Your task to perform on an android device: change notification settings in the gmail app Image 0: 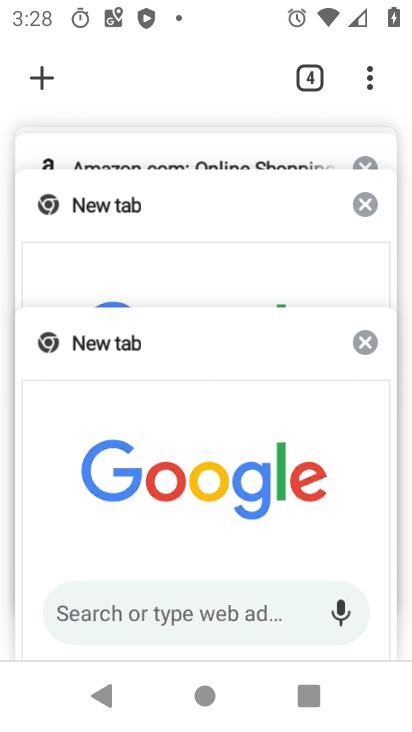
Step 0: press home button
Your task to perform on an android device: change notification settings in the gmail app Image 1: 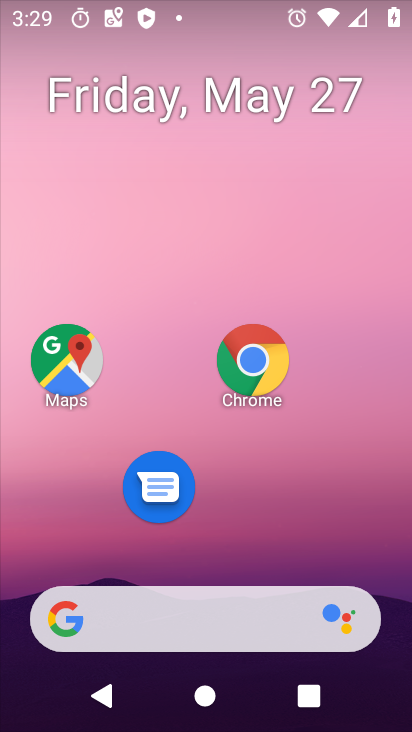
Step 1: drag from (272, 495) to (339, 1)
Your task to perform on an android device: change notification settings in the gmail app Image 2: 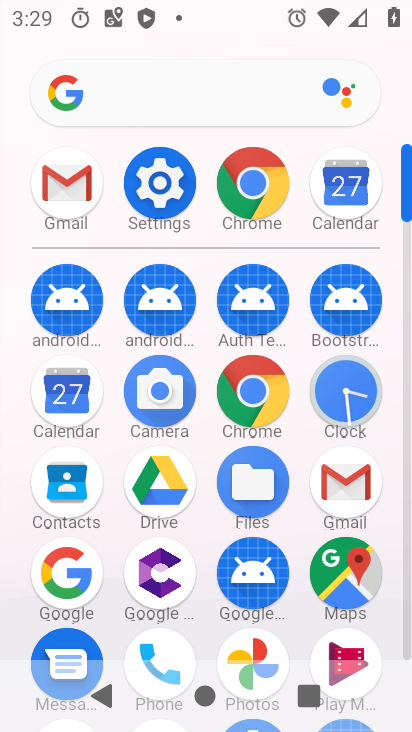
Step 2: click (56, 187)
Your task to perform on an android device: change notification settings in the gmail app Image 3: 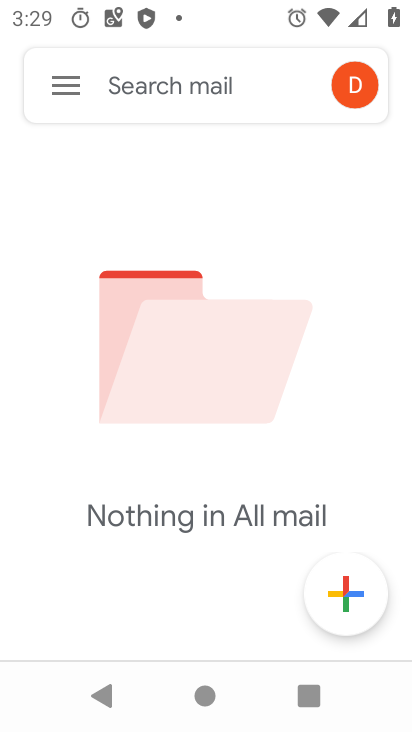
Step 3: click (71, 94)
Your task to perform on an android device: change notification settings in the gmail app Image 4: 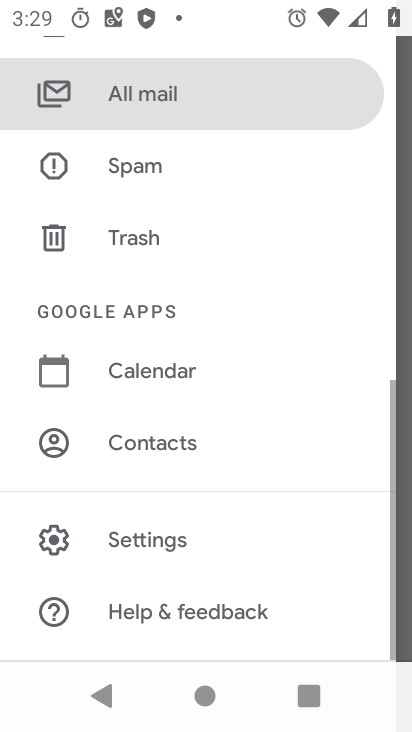
Step 4: click (159, 553)
Your task to perform on an android device: change notification settings in the gmail app Image 5: 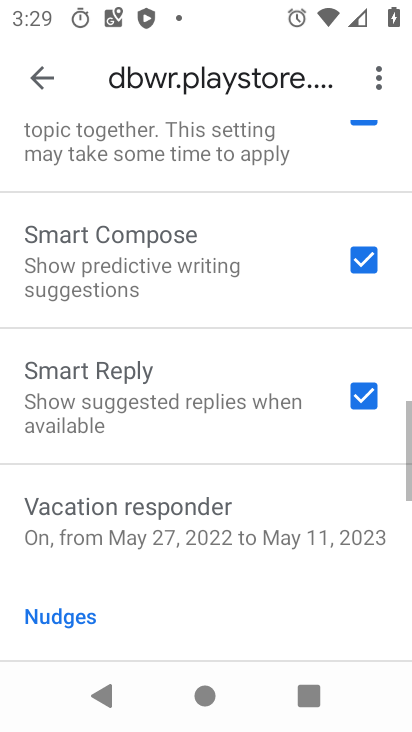
Step 5: drag from (223, 190) to (259, 515)
Your task to perform on an android device: change notification settings in the gmail app Image 6: 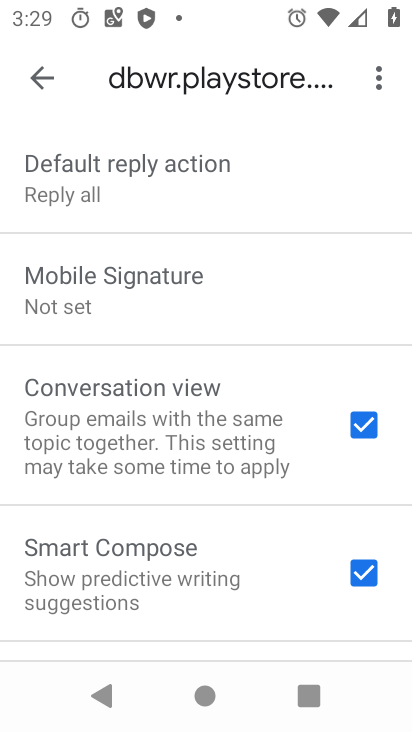
Step 6: drag from (196, 230) to (232, 528)
Your task to perform on an android device: change notification settings in the gmail app Image 7: 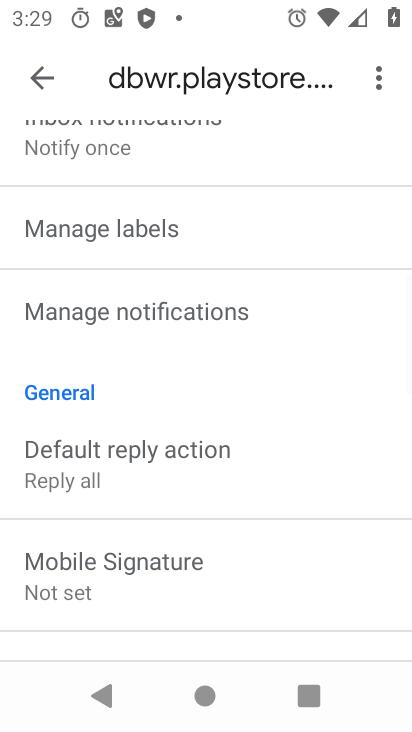
Step 7: drag from (144, 119) to (189, 339)
Your task to perform on an android device: change notification settings in the gmail app Image 8: 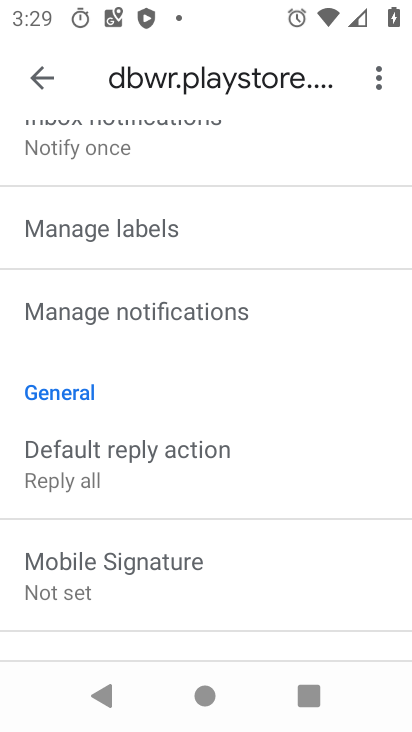
Step 8: drag from (168, 146) to (172, 394)
Your task to perform on an android device: change notification settings in the gmail app Image 9: 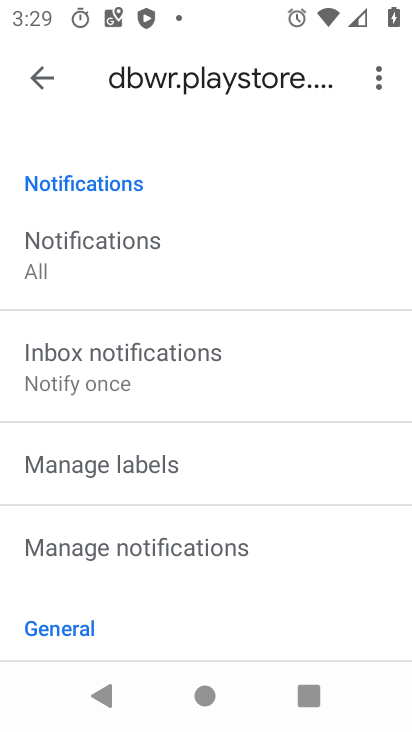
Step 9: click (138, 269)
Your task to perform on an android device: change notification settings in the gmail app Image 10: 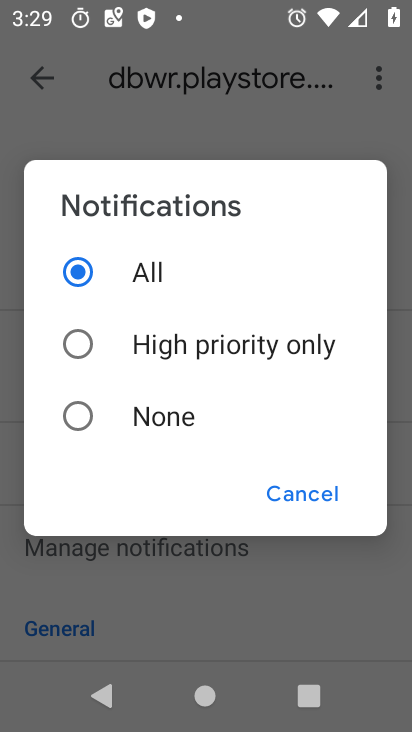
Step 10: click (80, 415)
Your task to perform on an android device: change notification settings in the gmail app Image 11: 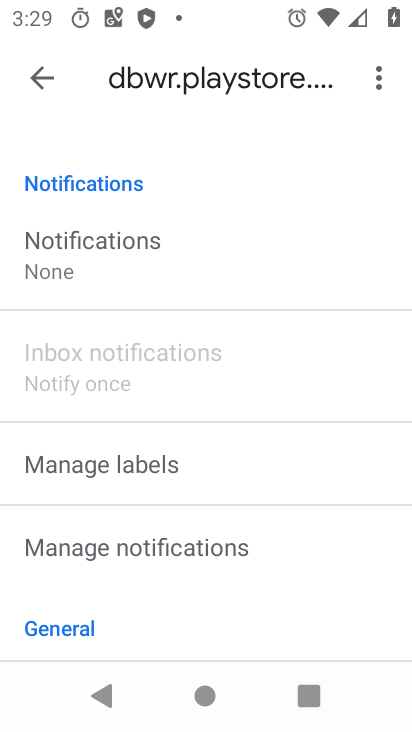
Step 11: task complete